Your task to perform on an android device: Play the last video I watched on Youtube Image 0: 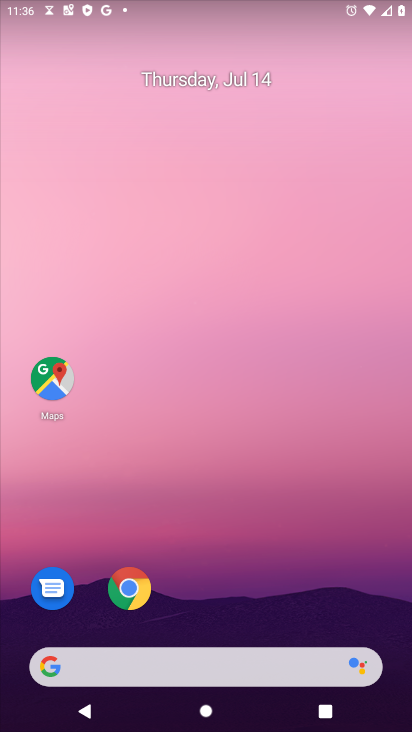
Step 0: press home button
Your task to perform on an android device: Play the last video I watched on Youtube Image 1: 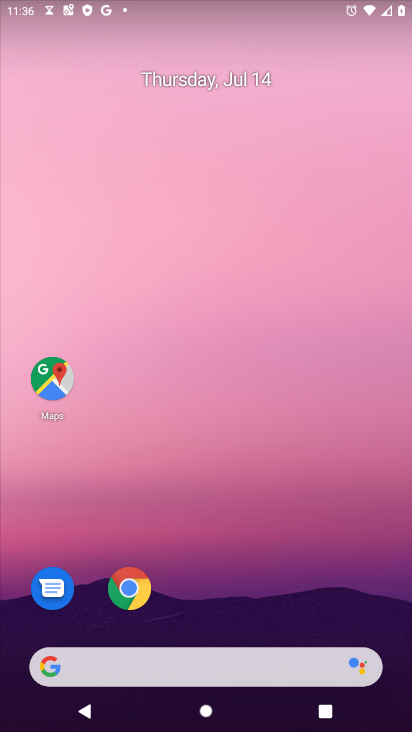
Step 1: drag from (265, 452) to (343, 39)
Your task to perform on an android device: Play the last video I watched on Youtube Image 2: 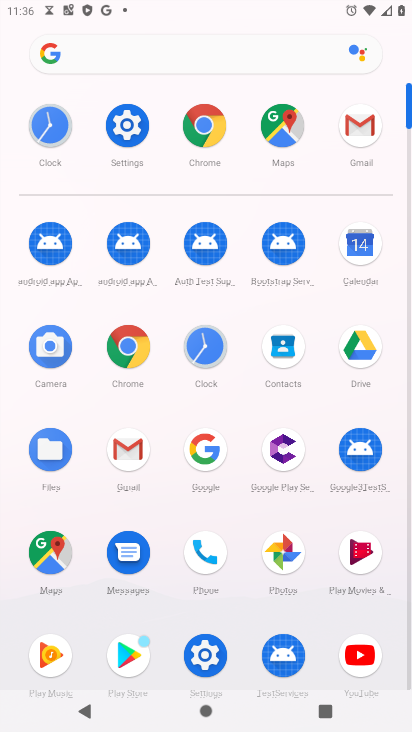
Step 2: click (367, 660)
Your task to perform on an android device: Play the last video I watched on Youtube Image 3: 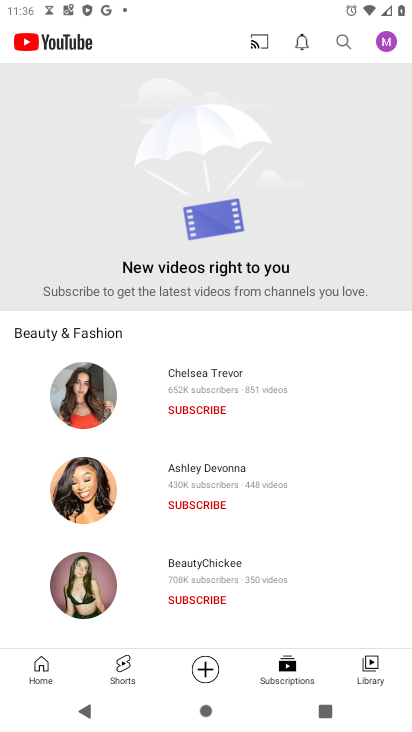
Step 3: drag from (306, 567) to (355, 43)
Your task to perform on an android device: Play the last video I watched on Youtube Image 4: 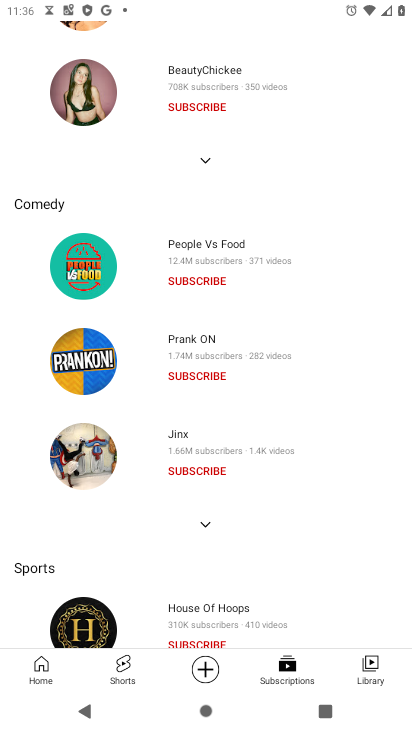
Step 4: click (48, 666)
Your task to perform on an android device: Play the last video I watched on Youtube Image 5: 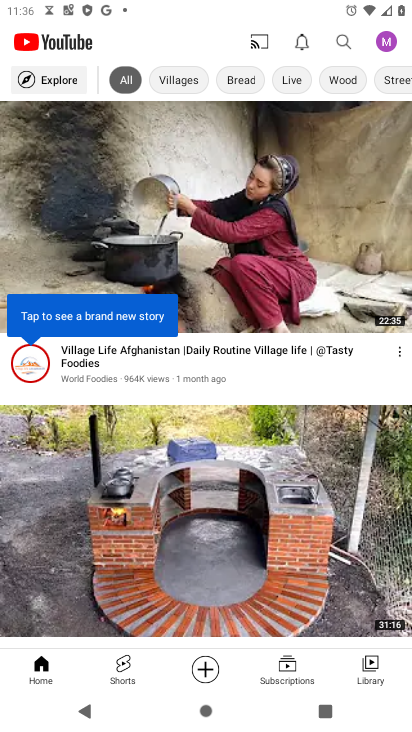
Step 5: click (376, 681)
Your task to perform on an android device: Play the last video I watched on Youtube Image 6: 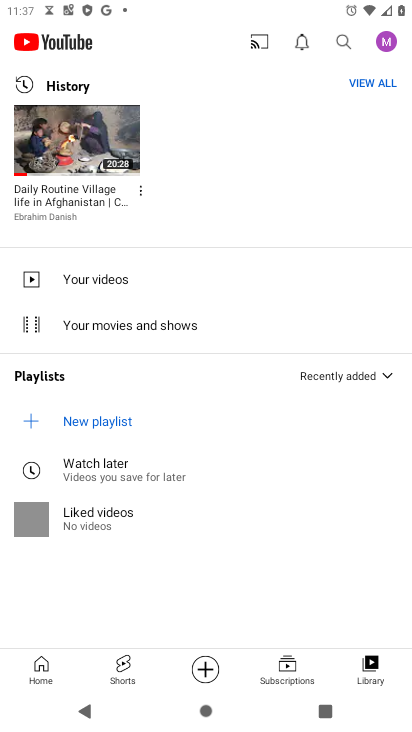
Step 6: click (61, 140)
Your task to perform on an android device: Play the last video I watched on Youtube Image 7: 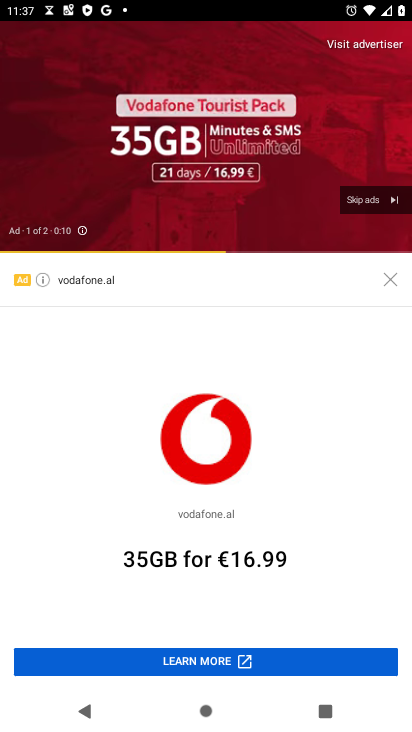
Step 7: click (368, 204)
Your task to perform on an android device: Play the last video I watched on Youtube Image 8: 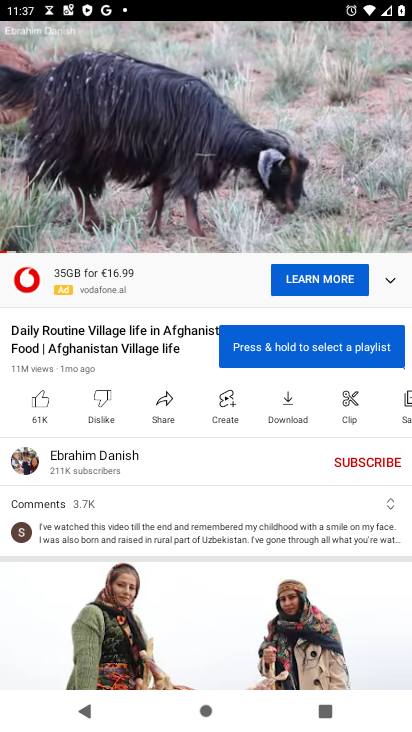
Step 8: click (247, 85)
Your task to perform on an android device: Play the last video I watched on Youtube Image 9: 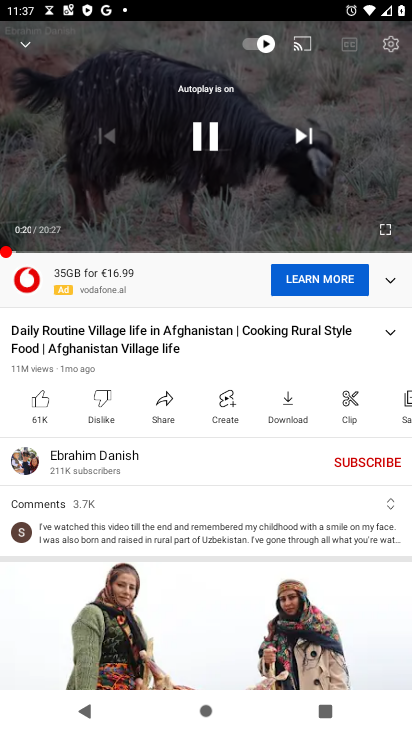
Step 9: click (210, 137)
Your task to perform on an android device: Play the last video I watched on Youtube Image 10: 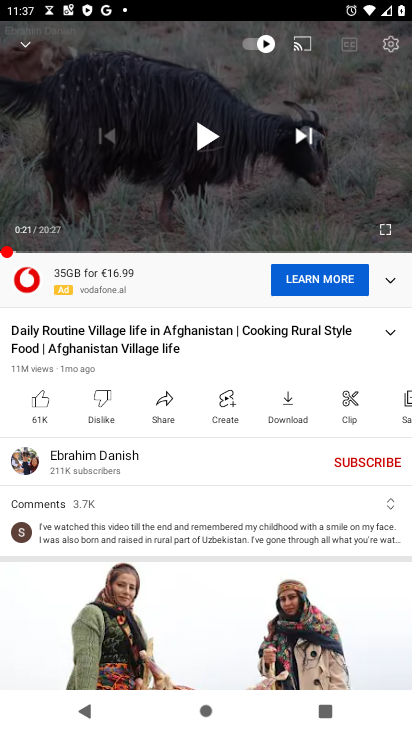
Step 10: task complete